Your task to perform on an android device: install app "VLC for Android" Image 0: 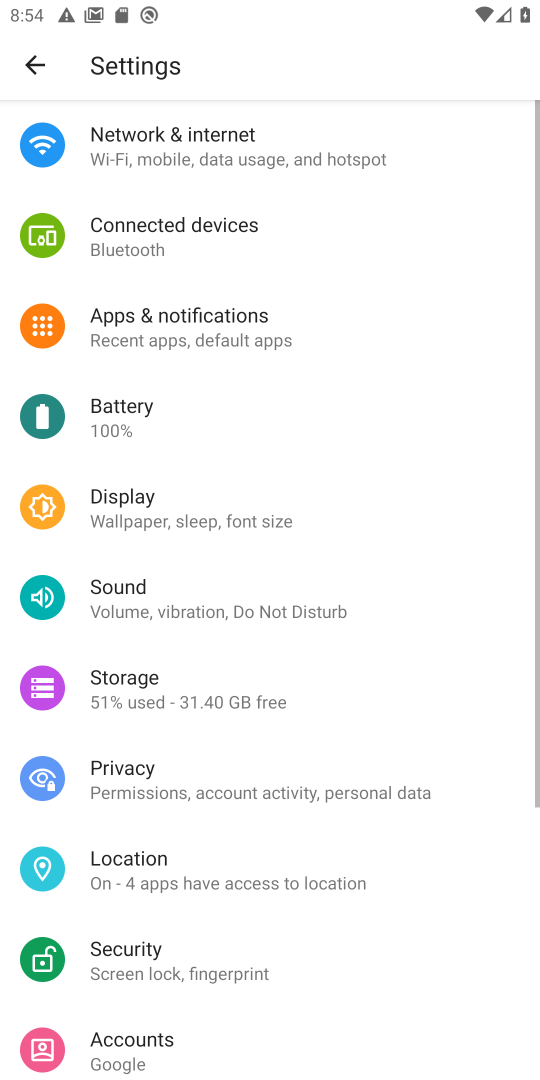
Step 0: press home button
Your task to perform on an android device: install app "VLC for Android" Image 1: 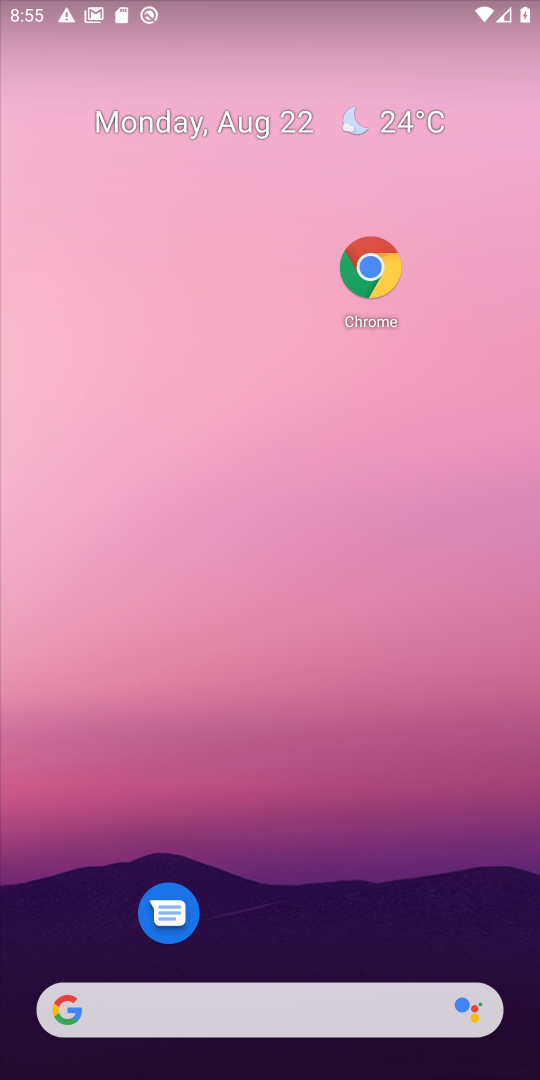
Step 1: drag from (253, 945) to (224, 244)
Your task to perform on an android device: install app "VLC for Android" Image 2: 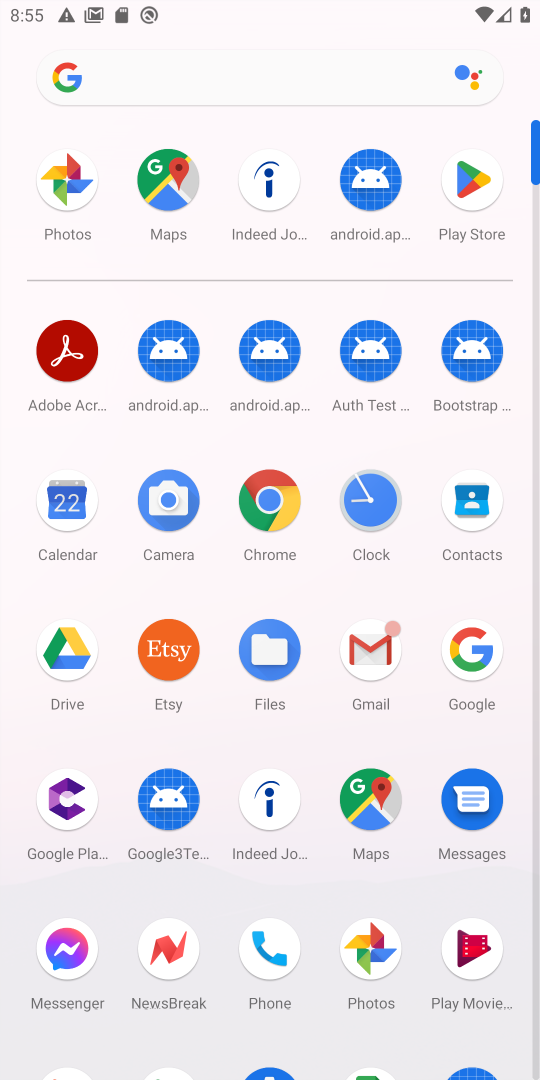
Step 2: click (467, 198)
Your task to perform on an android device: install app "VLC for Android" Image 3: 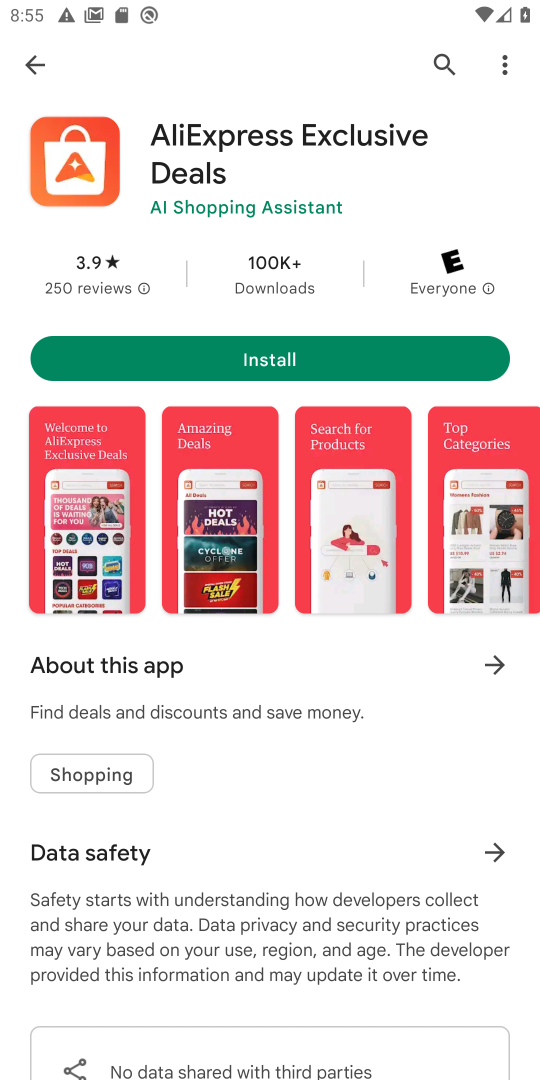
Step 3: click (494, 61)
Your task to perform on an android device: install app "VLC for Android" Image 4: 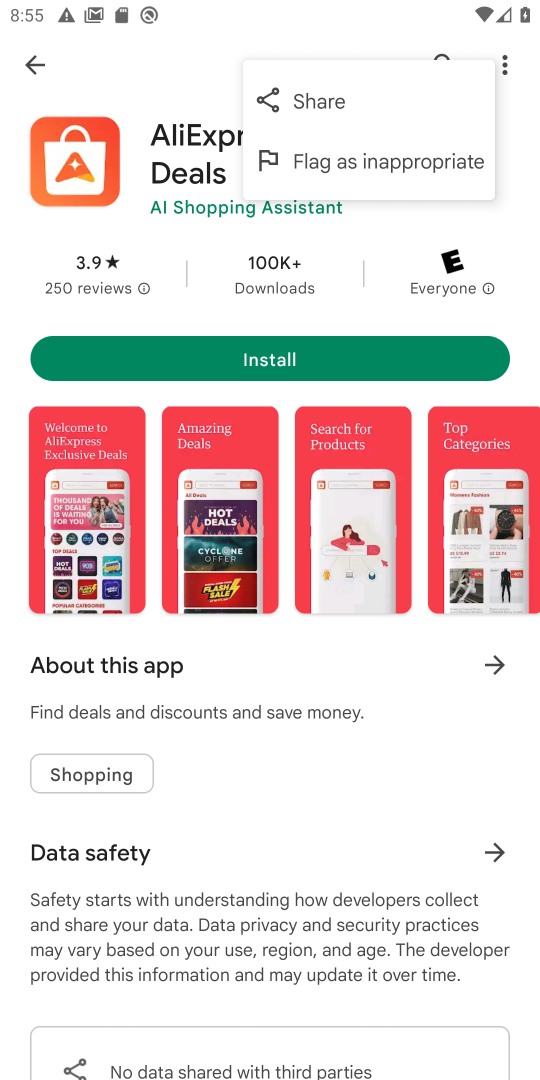
Step 4: click (200, 54)
Your task to perform on an android device: install app "VLC for Android" Image 5: 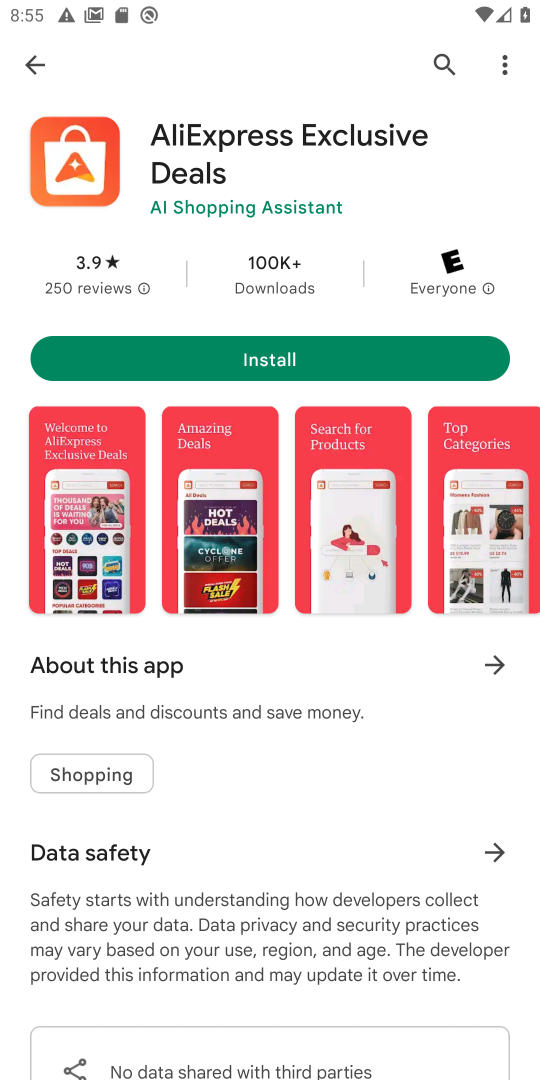
Step 5: click (459, 57)
Your task to perform on an android device: install app "VLC for Android" Image 6: 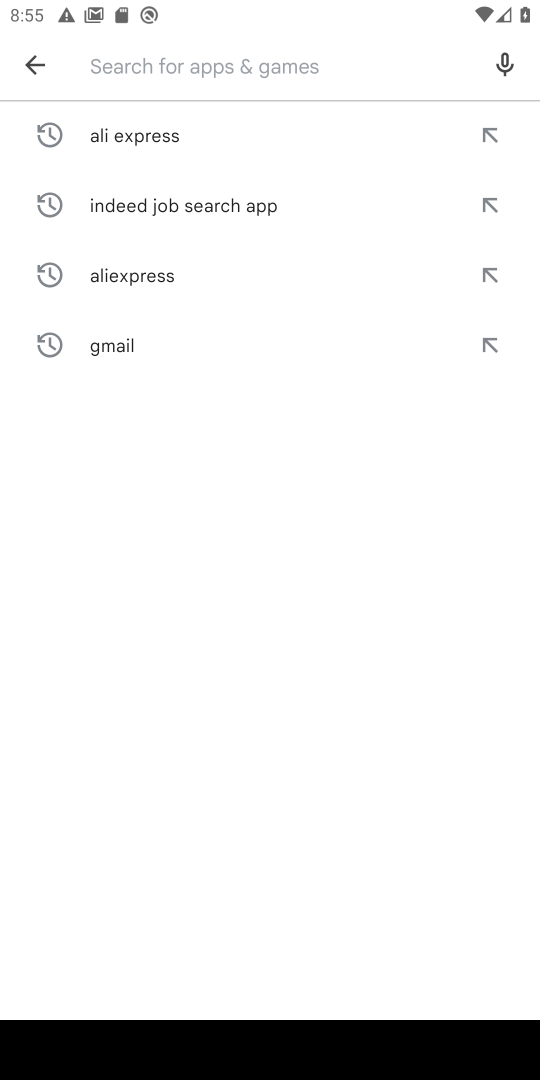
Step 6: type "vlc"
Your task to perform on an android device: install app "VLC for Android" Image 7: 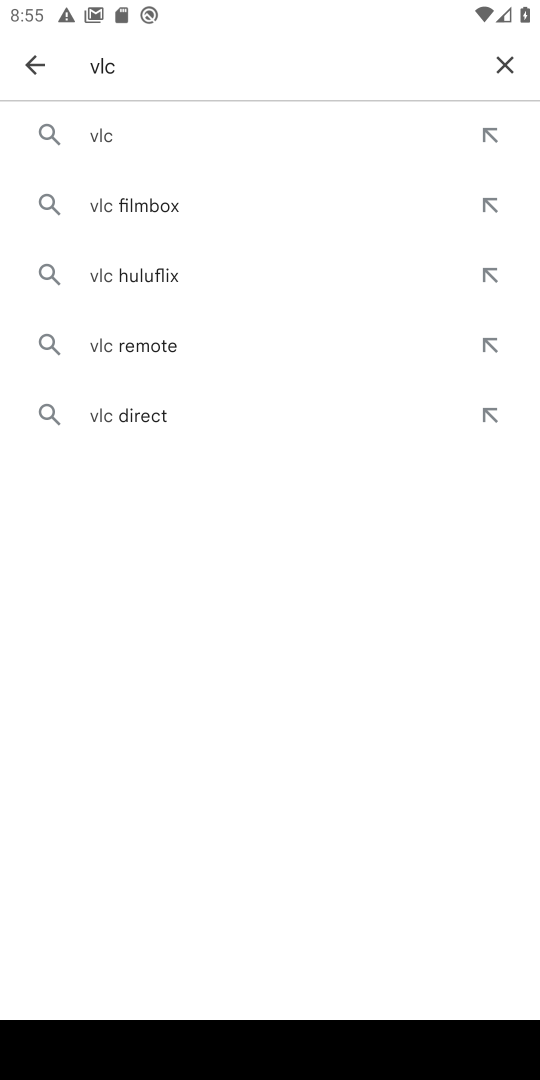
Step 7: click (142, 137)
Your task to perform on an android device: install app "VLC for Android" Image 8: 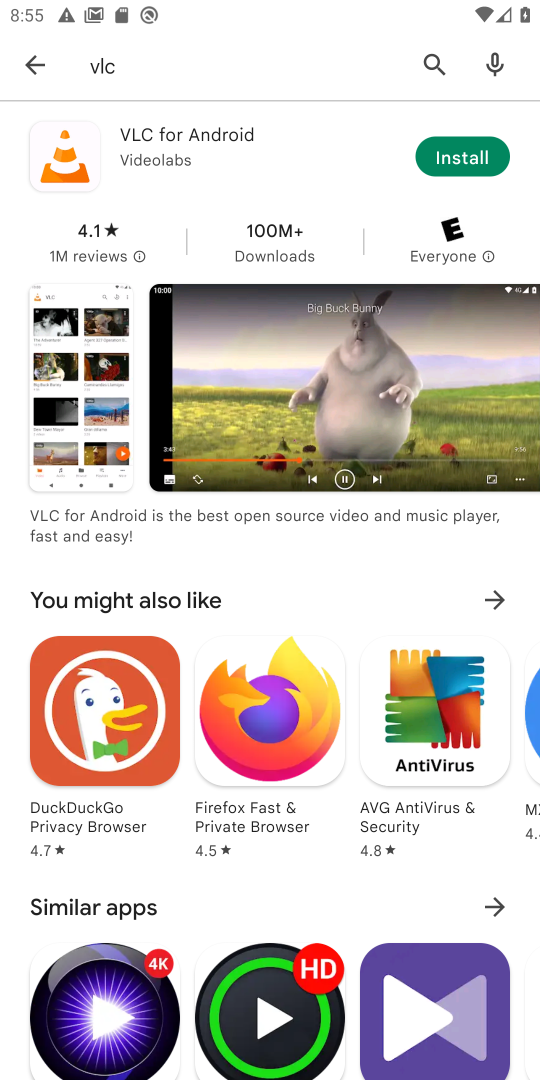
Step 8: click (461, 163)
Your task to perform on an android device: install app "VLC for Android" Image 9: 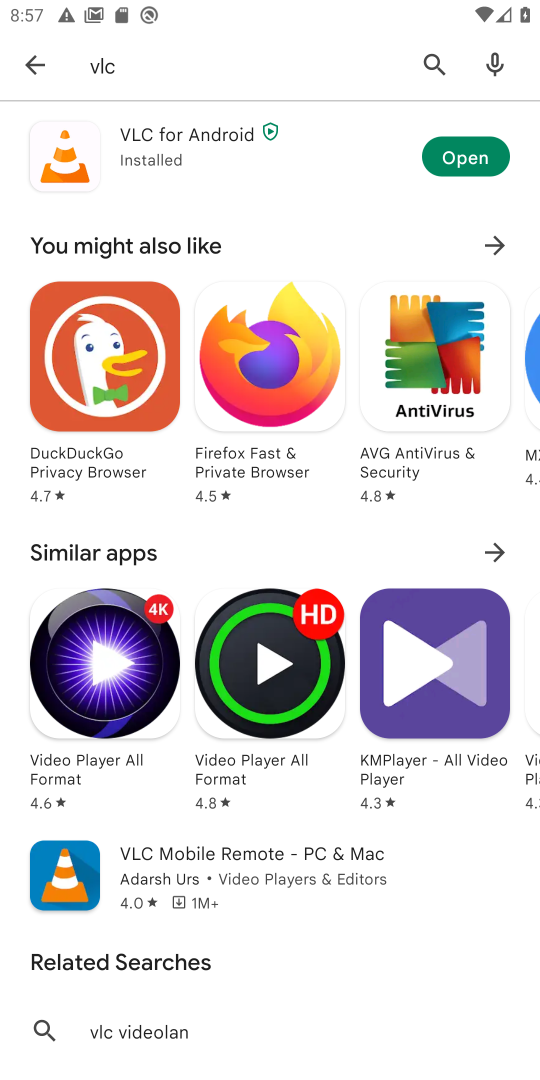
Step 9: task complete